Your task to perform on an android device: Open notification settings Image 0: 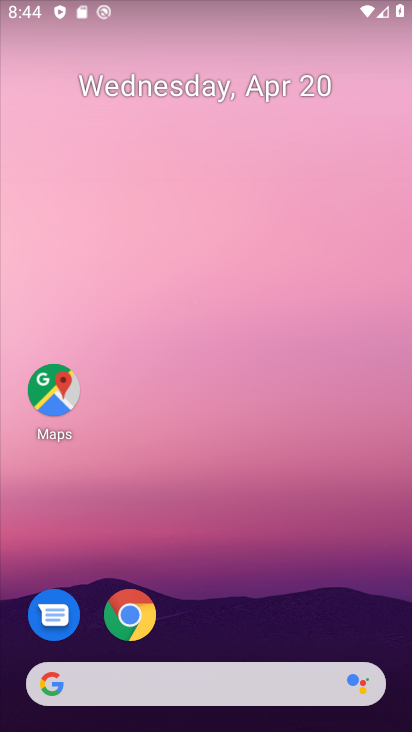
Step 0: drag from (230, 595) to (309, 157)
Your task to perform on an android device: Open notification settings Image 1: 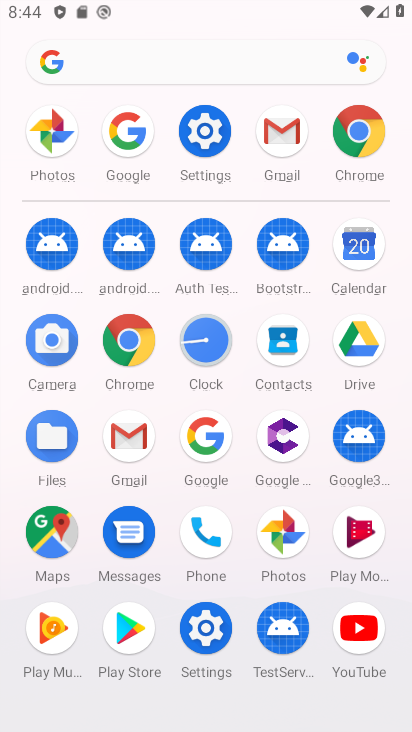
Step 1: click (207, 129)
Your task to perform on an android device: Open notification settings Image 2: 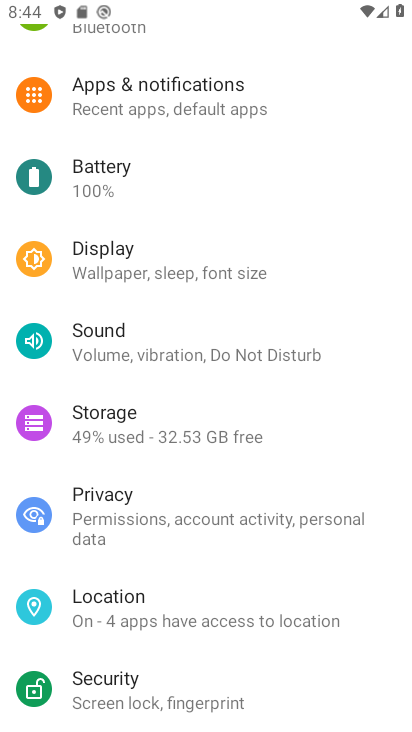
Step 2: click (204, 92)
Your task to perform on an android device: Open notification settings Image 3: 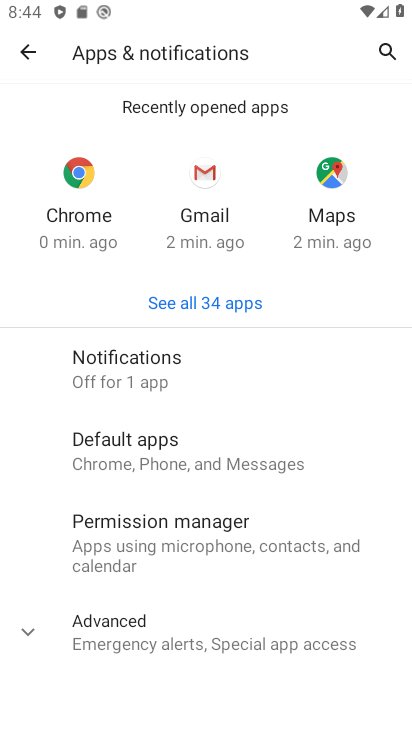
Step 3: click (163, 354)
Your task to perform on an android device: Open notification settings Image 4: 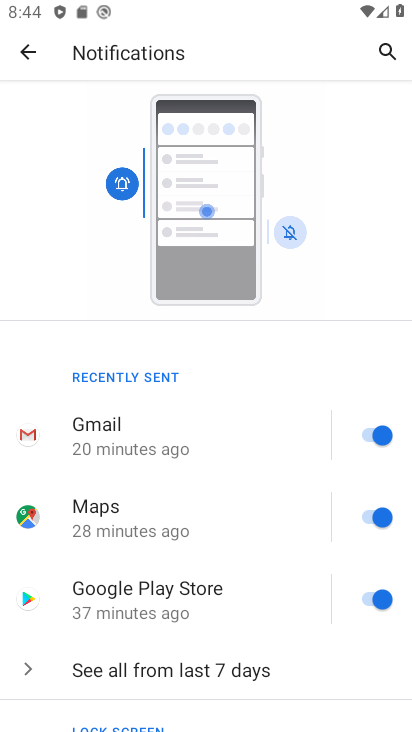
Step 4: task complete